Your task to perform on an android device: delete browsing data in the chrome app Image 0: 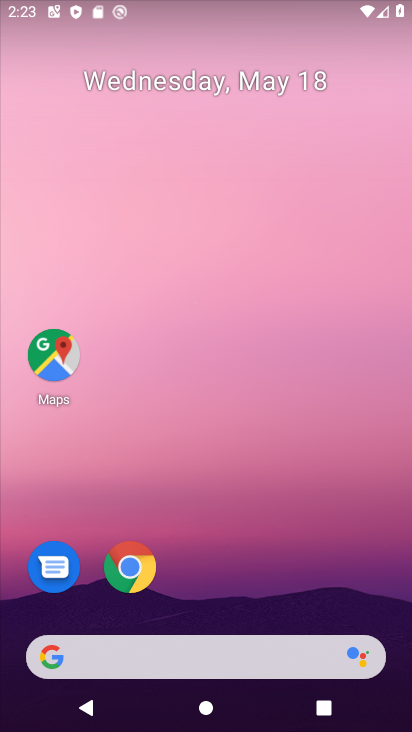
Step 0: click (132, 568)
Your task to perform on an android device: delete browsing data in the chrome app Image 1: 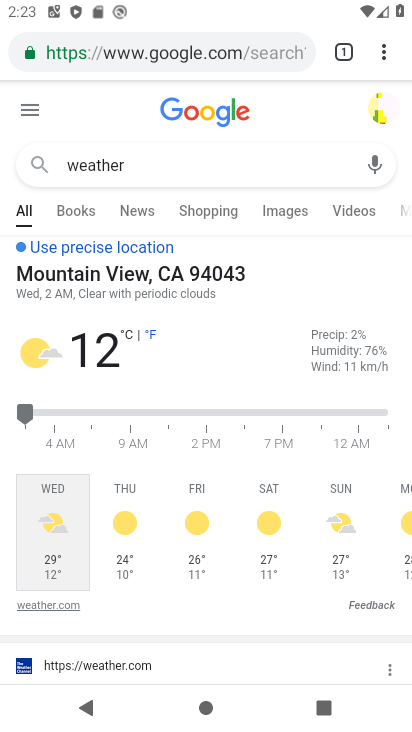
Step 1: drag from (387, 51) to (208, 301)
Your task to perform on an android device: delete browsing data in the chrome app Image 2: 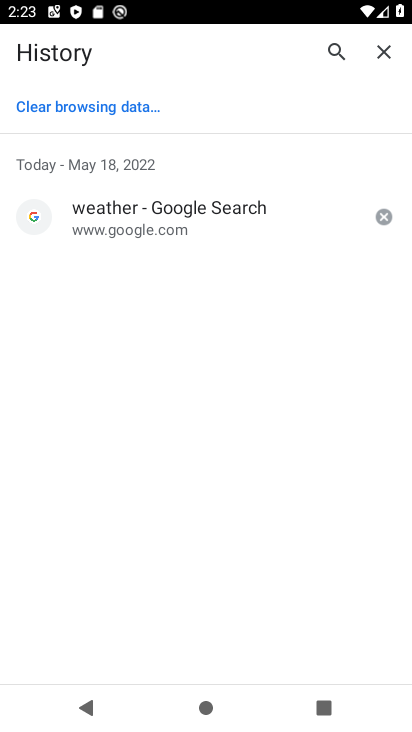
Step 2: click (122, 105)
Your task to perform on an android device: delete browsing data in the chrome app Image 3: 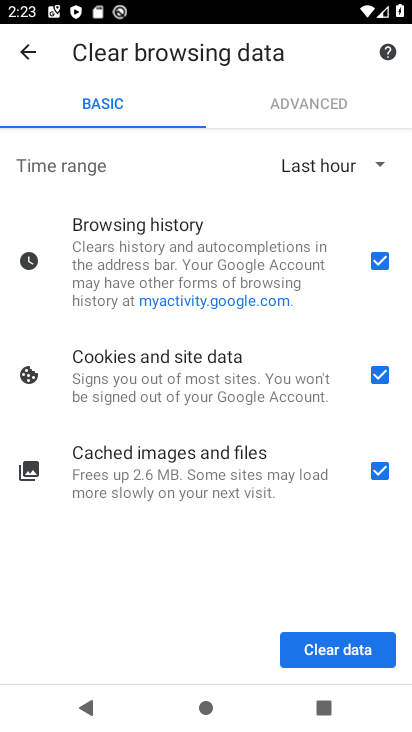
Step 3: click (350, 161)
Your task to perform on an android device: delete browsing data in the chrome app Image 4: 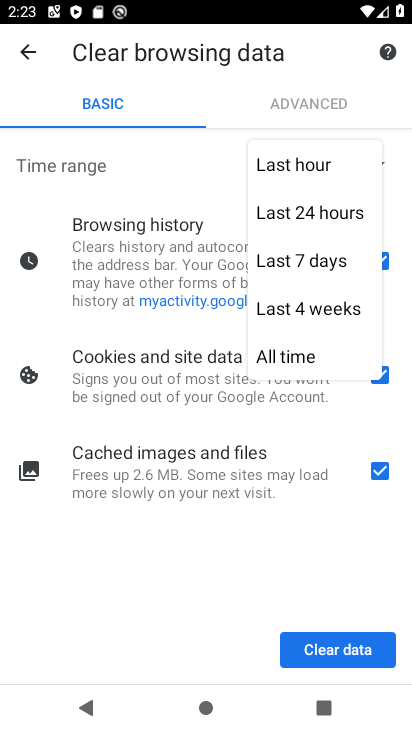
Step 4: click (276, 356)
Your task to perform on an android device: delete browsing data in the chrome app Image 5: 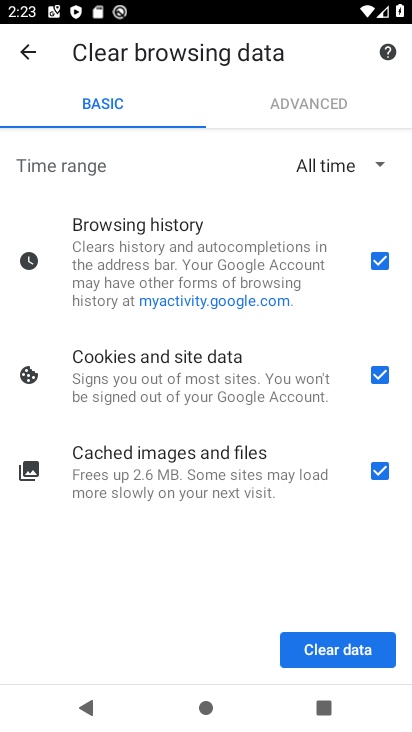
Step 5: click (358, 642)
Your task to perform on an android device: delete browsing data in the chrome app Image 6: 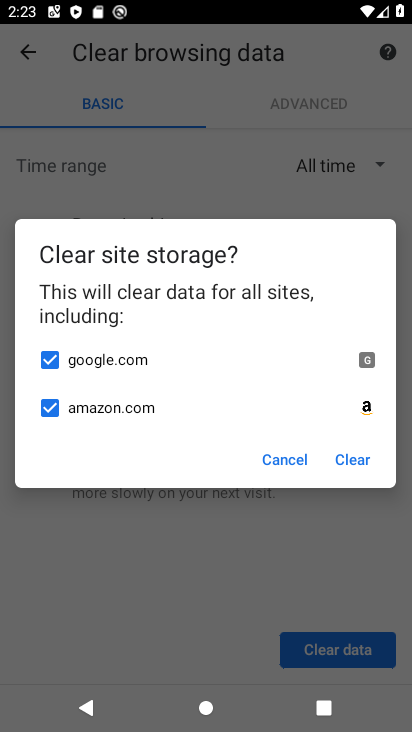
Step 6: click (370, 467)
Your task to perform on an android device: delete browsing data in the chrome app Image 7: 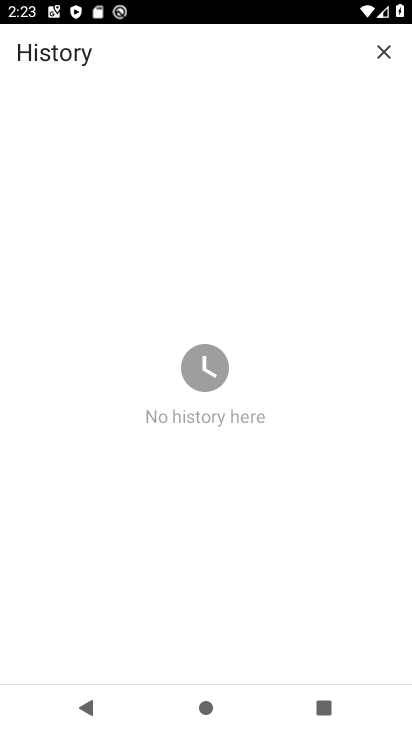
Step 7: task complete